Your task to perform on an android device: Open Yahoo.com Image 0: 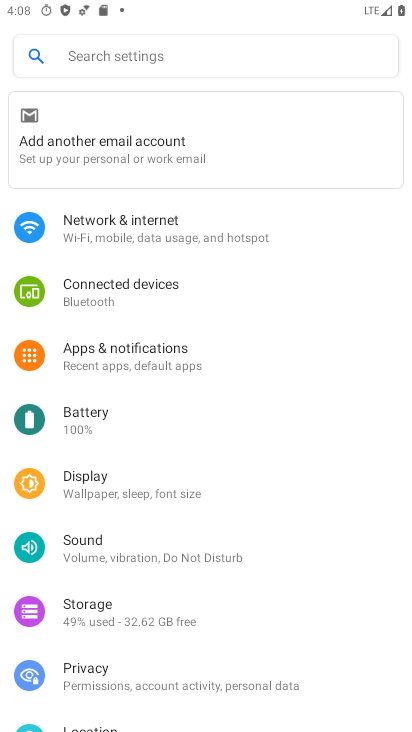
Step 0: press home button
Your task to perform on an android device: Open Yahoo.com Image 1: 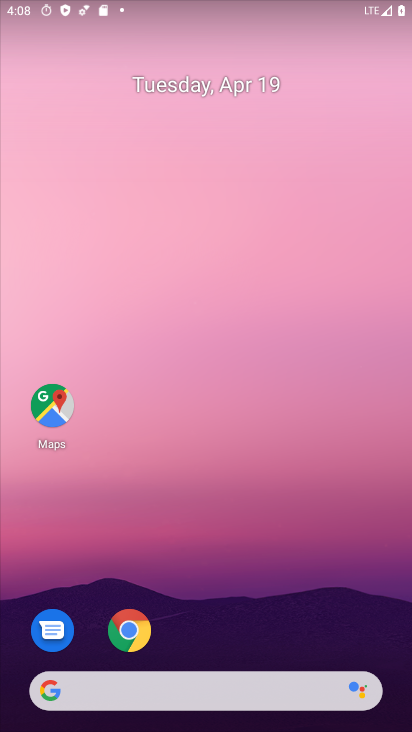
Step 1: click (187, 680)
Your task to perform on an android device: Open Yahoo.com Image 2: 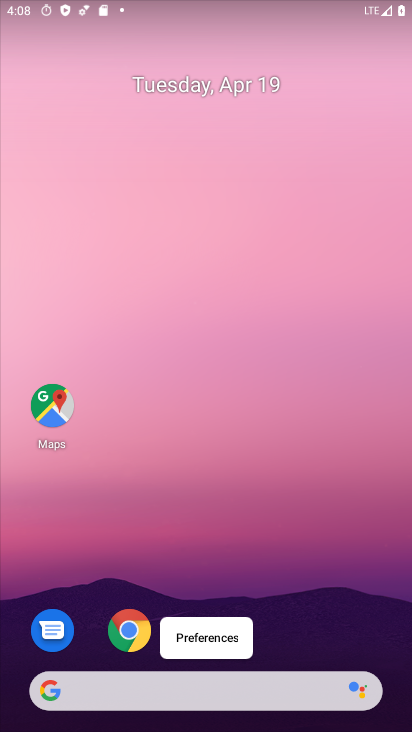
Step 2: click (210, 681)
Your task to perform on an android device: Open Yahoo.com Image 3: 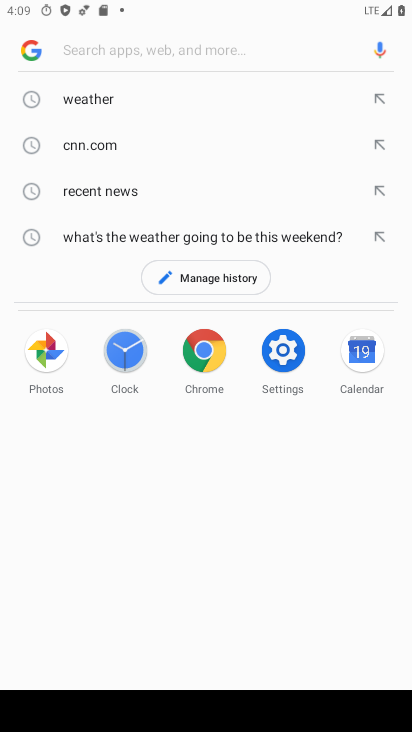
Step 3: type "Yahoo.com"
Your task to perform on an android device: Open Yahoo.com Image 4: 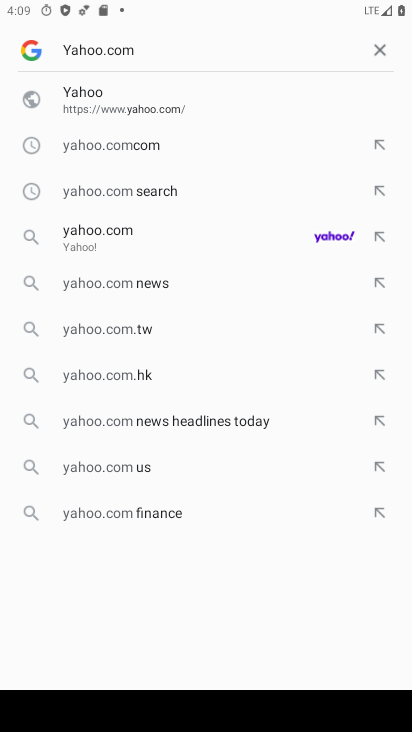
Step 4: click (137, 106)
Your task to perform on an android device: Open Yahoo.com Image 5: 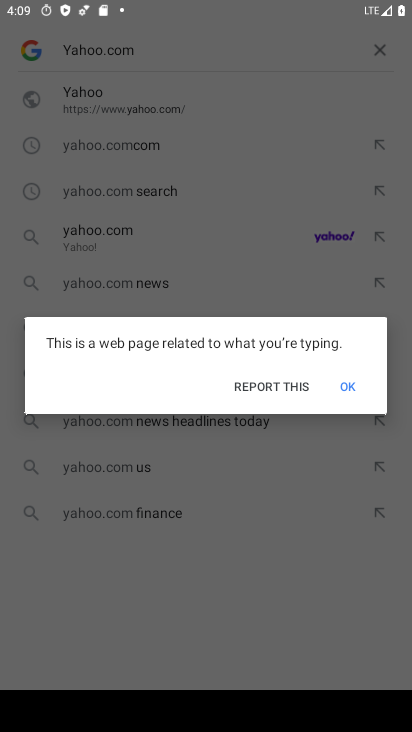
Step 5: click (349, 388)
Your task to perform on an android device: Open Yahoo.com Image 6: 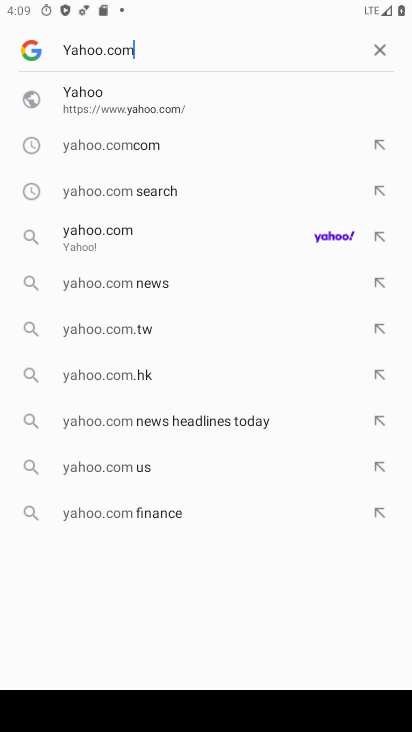
Step 6: click (125, 109)
Your task to perform on an android device: Open Yahoo.com Image 7: 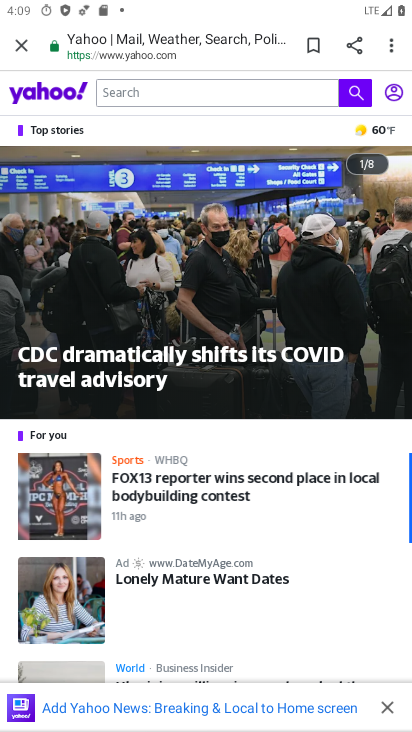
Step 7: task complete